Your task to perform on an android device: Go to Google maps Image 0: 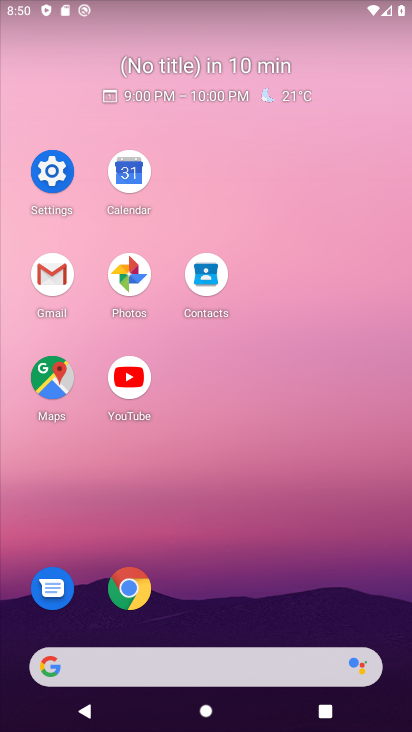
Step 0: click (62, 392)
Your task to perform on an android device: Go to Google maps Image 1: 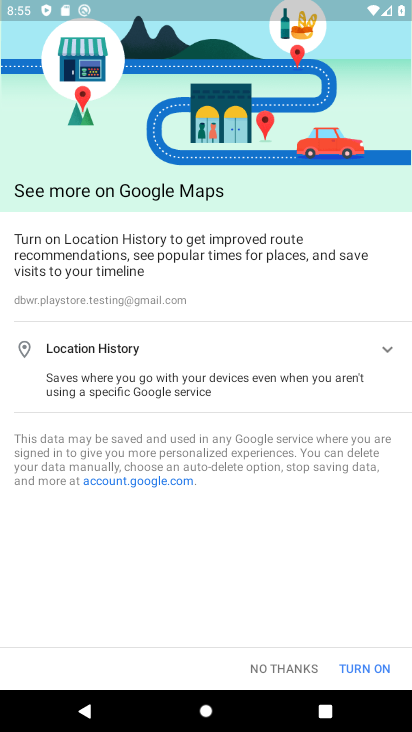
Step 1: task complete